Your task to perform on an android device: See recent photos Image 0: 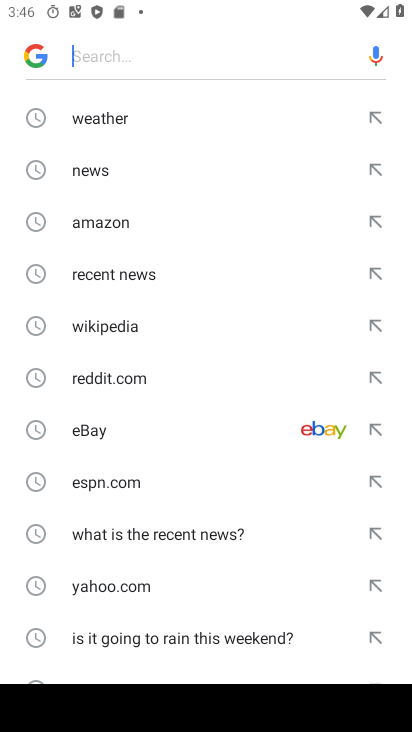
Step 0: press home button
Your task to perform on an android device: See recent photos Image 1: 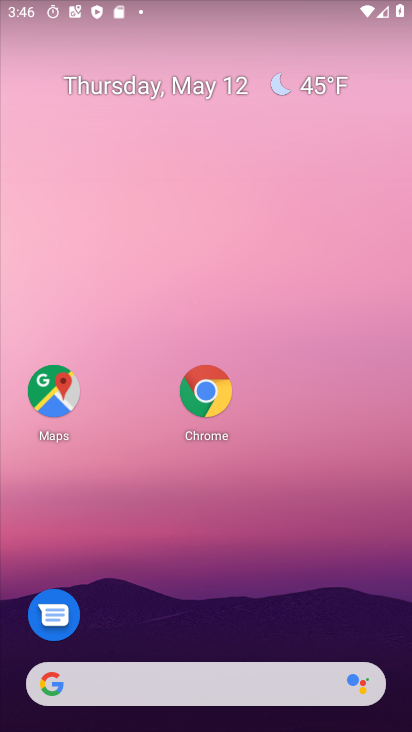
Step 1: drag from (218, 578) to (208, 61)
Your task to perform on an android device: See recent photos Image 2: 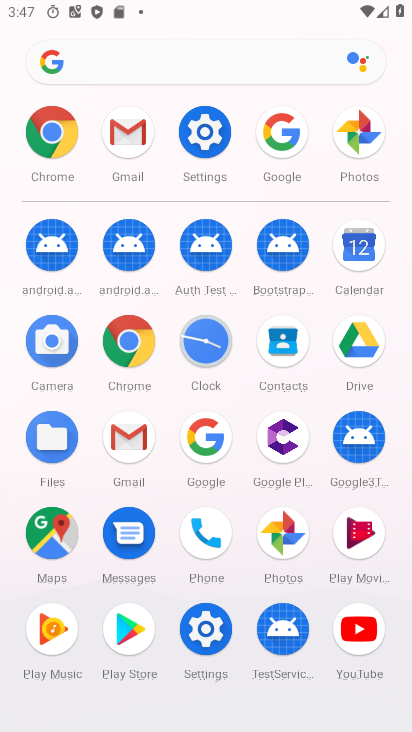
Step 2: click (355, 134)
Your task to perform on an android device: See recent photos Image 3: 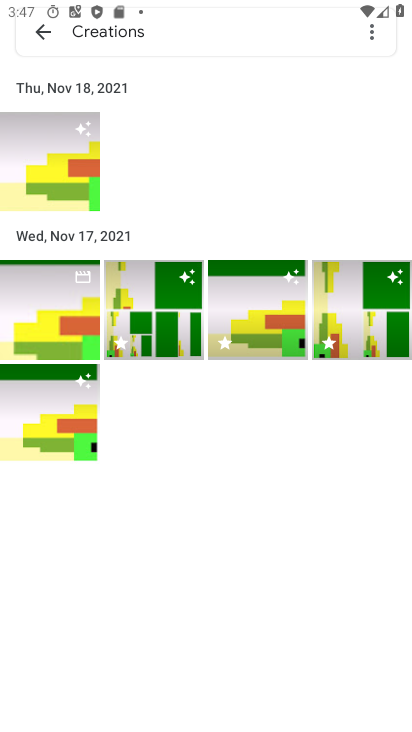
Step 3: click (210, 35)
Your task to perform on an android device: See recent photos Image 4: 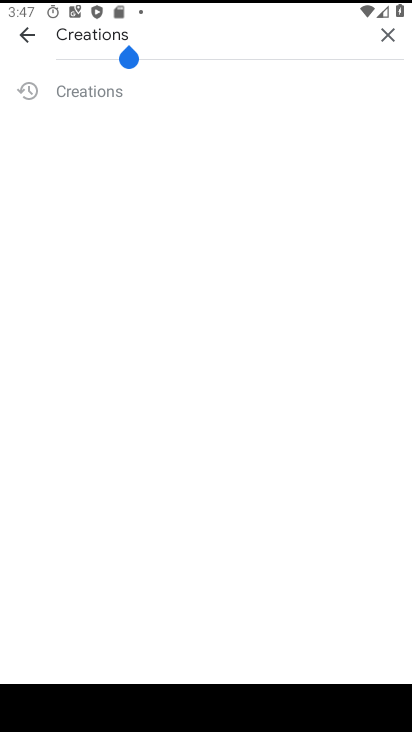
Step 4: click (385, 34)
Your task to perform on an android device: See recent photos Image 5: 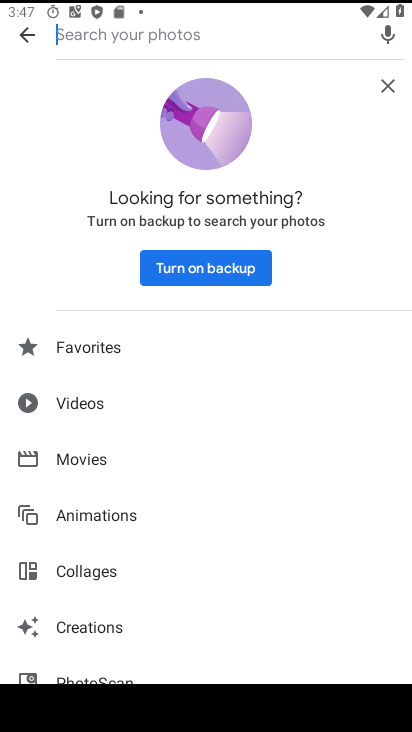
Step 5: press back button
Your task to perform on an android device: See recent photos Image 6: 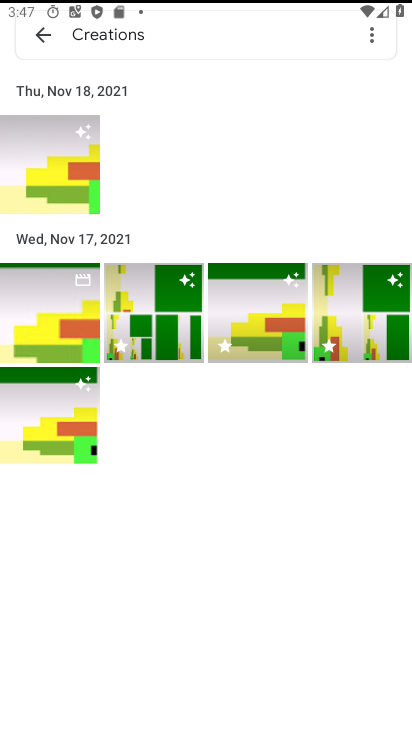
Step 6: press back button
Your task to perform on an android device: See recent photos Image 7: 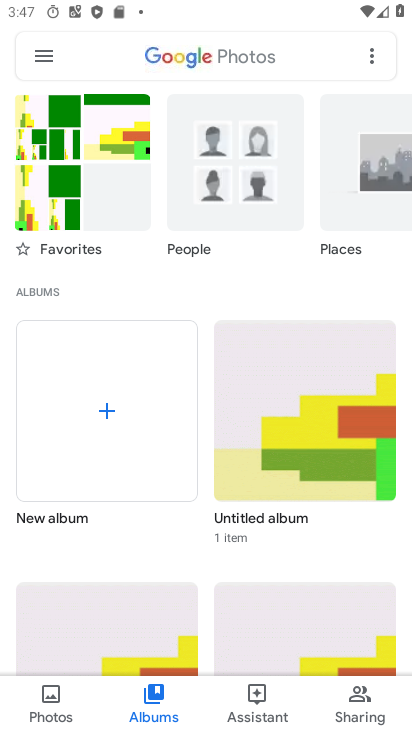
Step 7: click (46, 708)
Your task to perform on an android device: See recent photos Image 8: 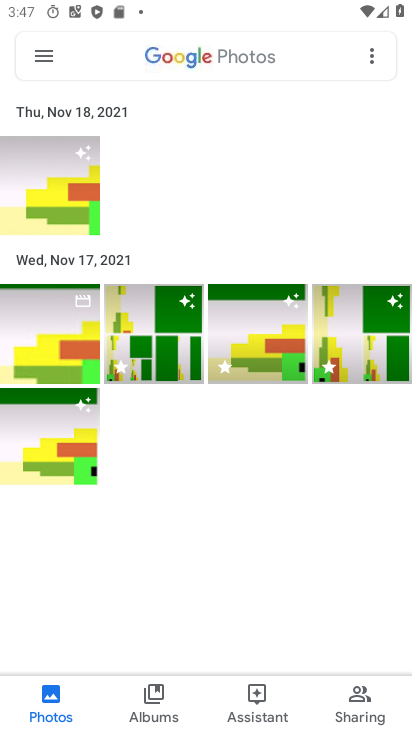
Step 8: task complete